Your task to perform on an android device: Play the last video I watched on Youtube Image 0: 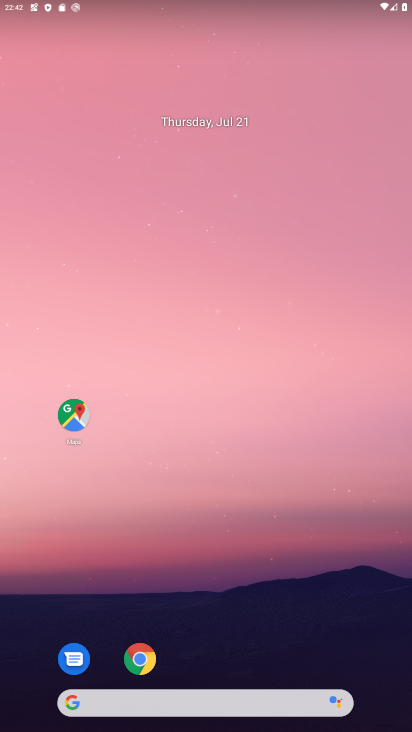
Step 0: drag from (306, 666) to (227, 26)
Your task to perform on an android device: Play the last video I watched on Youtube Image 1: 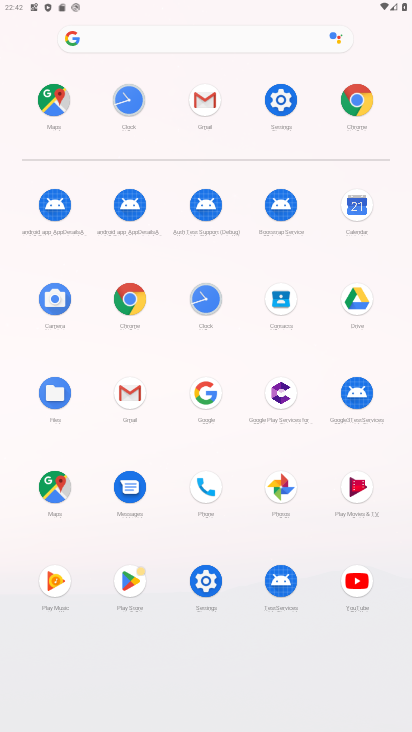
Step 1: click (365, 579)
Your task to perform on an android device: Play the last video I watched on Youtube Image 2: 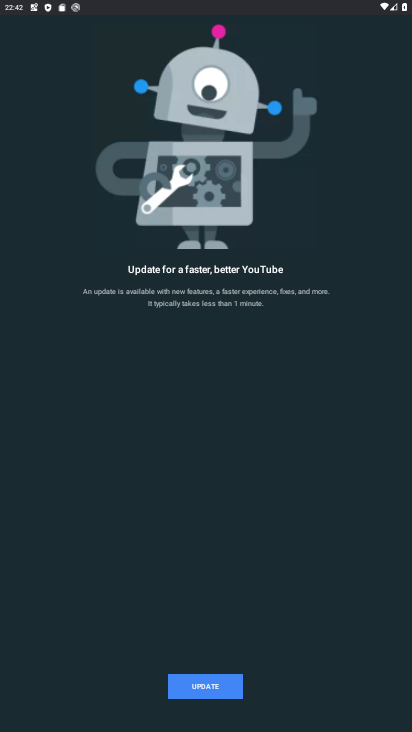
Step 2: click (200, 689)
Your task to perform on an android device: Play the last video I watched on Youtube Image 3: 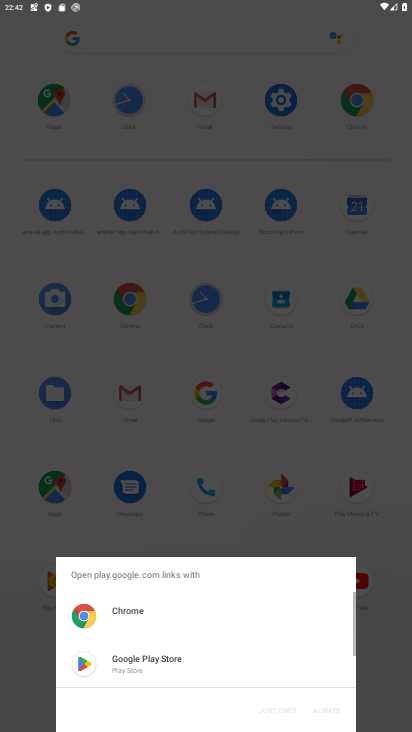
Step 3: click (200, 689)
Your task to perform on an android device: Play the last video I watched on Youtube Image 4: 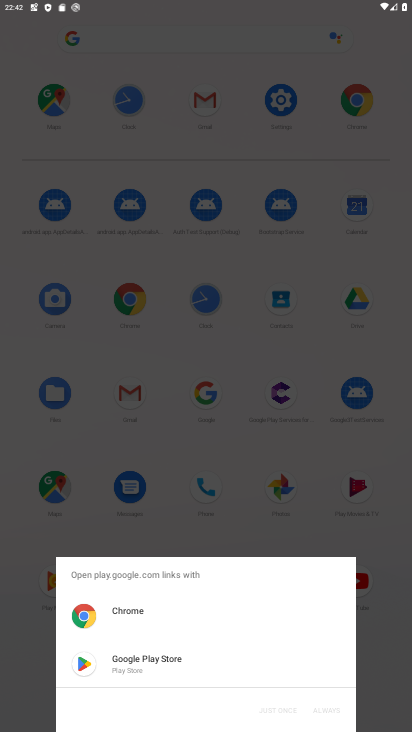
Step 4: click (195, 678)
Your task to perform on an android device: Play the last video I watched on Youtube Image 5: 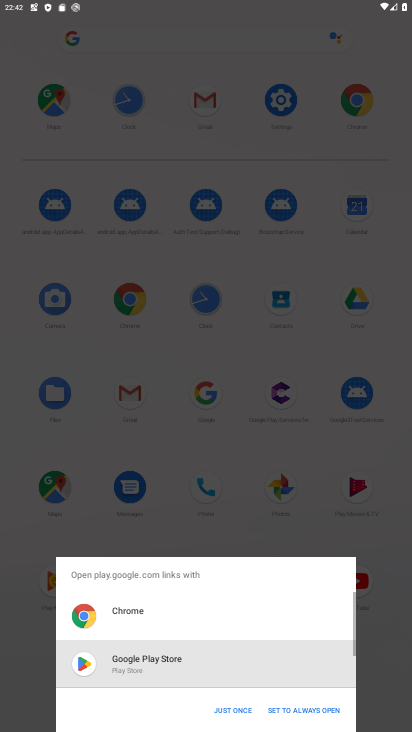
Step 5: click (225, 723)
Your task to perform on an android device: Play the last video I watched on Youtube Image 6: 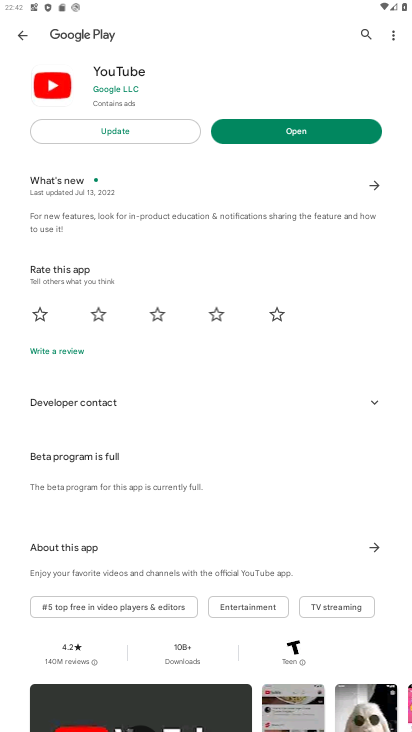
Step 6: click (138, 133)
Your task to perform on an android device: Play the last video I watched on Youtube Image 7: 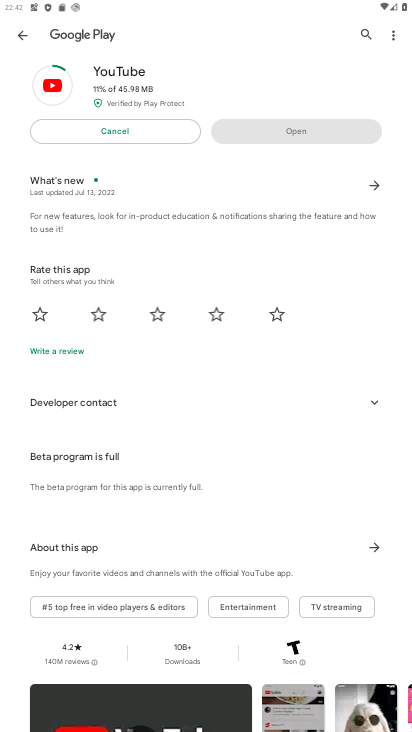
Step 7: task complete